Your task to perform on an android device: Open Google Chrome and click the shortcut for Amazon.com Image 0: 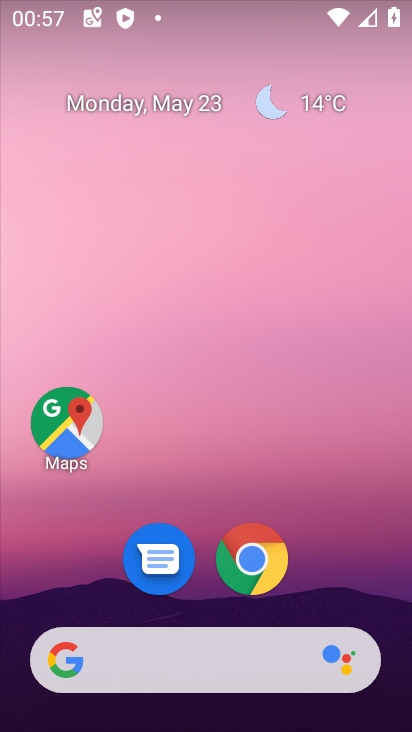
Step 0: click (257, 566)
Your task to perform on an android device: Open Google Chrome and click the shortcut for Amazon.com Image 1: 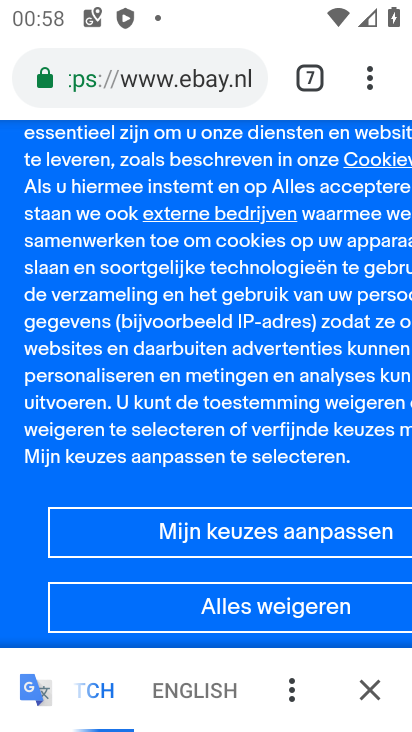
Step 1: click (371, 79)
Your task to perform on an android device: Open Google Chrome and click the shortcut for Amazon.com Image 2: 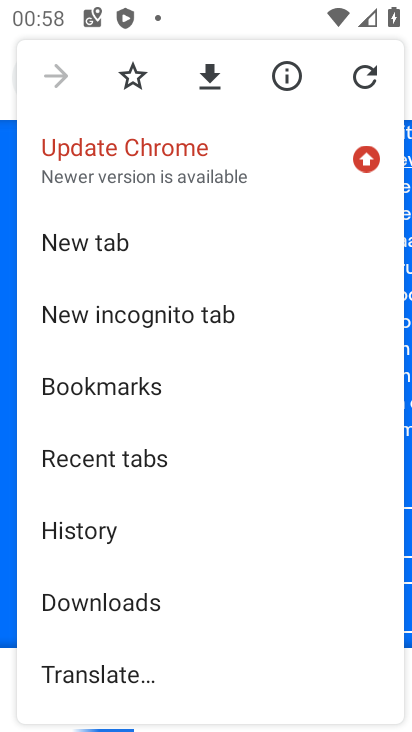
Step 2: click (94, 249)
Your task to perform on an android device: Open Google Chrome and click the shortcut for Amazon.com Image 3: 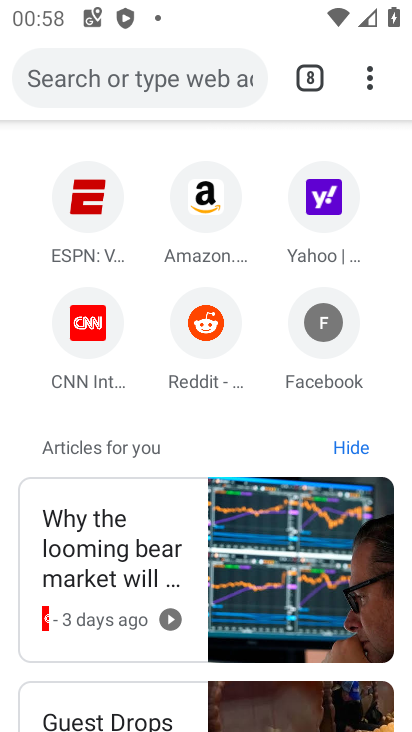
Step 3: click (202, 222)
Your task to perform on an android device: Open Google Chrome and click the shortcut for Amazon.com Image 4: 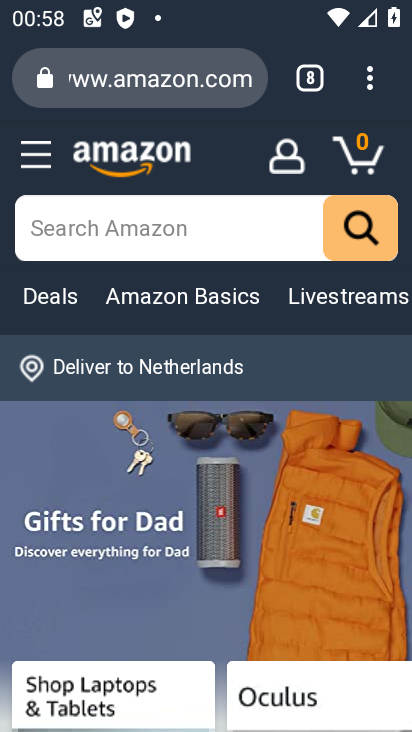
Step 4: task complete